Your task to perform on an android device: Find coffee shops on Maps Image 0: 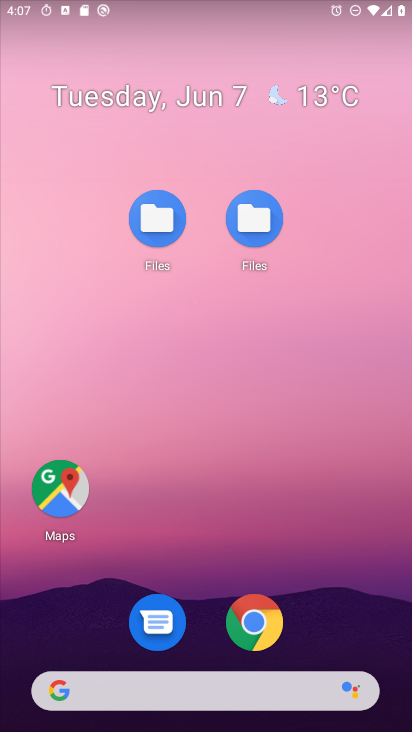
Step 0: click (62, 501)
Your task to perform on an android device: Find coffee shops on Maps Image 1: 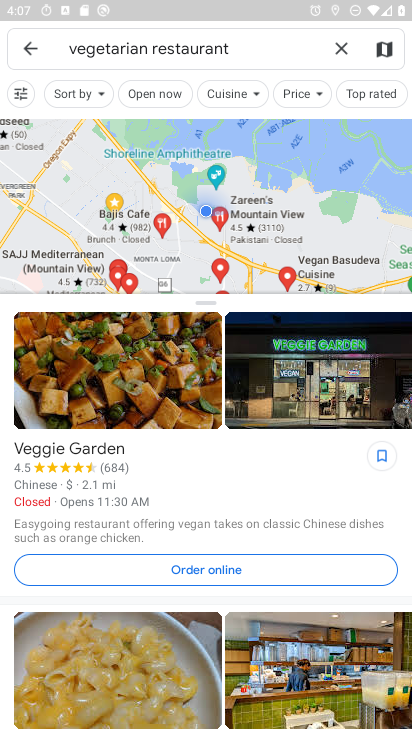
Step 1: click (335, 52)
Your task to perform on an android device: Find coffee shops on Maps Image 2: 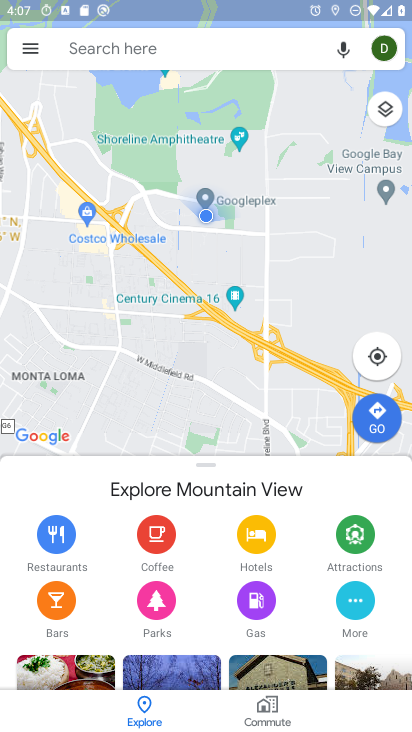
Step 2: click (206, 46)
Your task to perform on an android device: Find coffee shops on Maps Image 3: 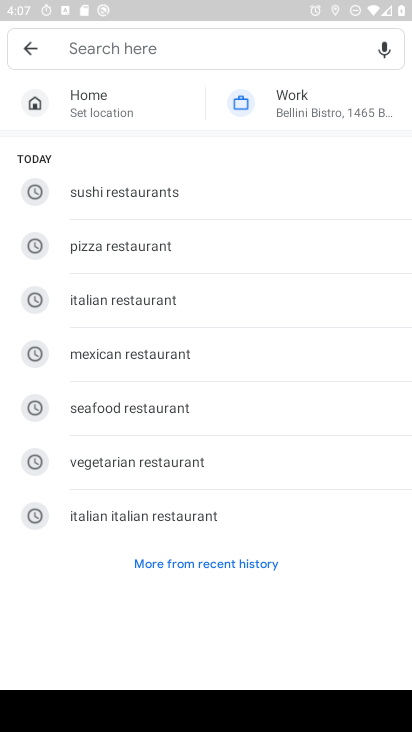
Step 3: type "coffee shops"
Your task to perform on an android device: Find coffee shops on Maps Image 4: 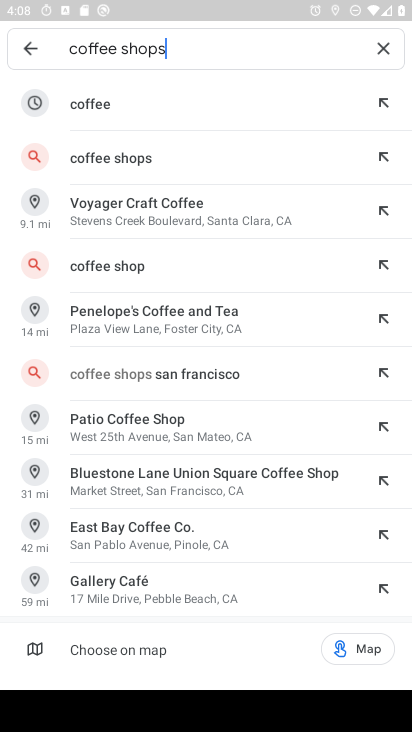
Step 4: click (175, 147)
Your task to perform on an android device: Find coffee shops on Maps Image 5: 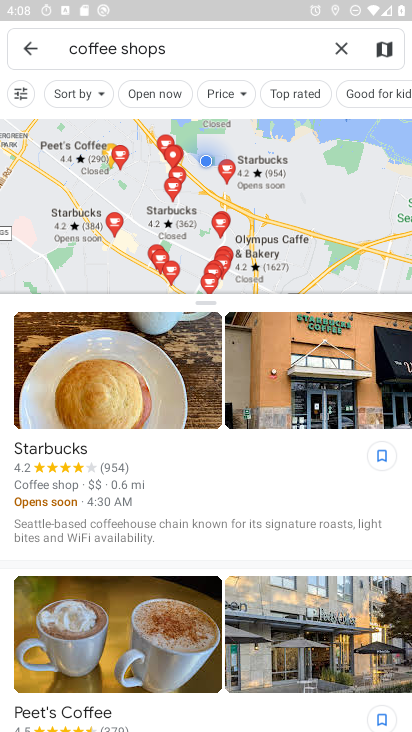
Step 5: task complete